Your task to perform on an android device: What's the weather? Image 0: 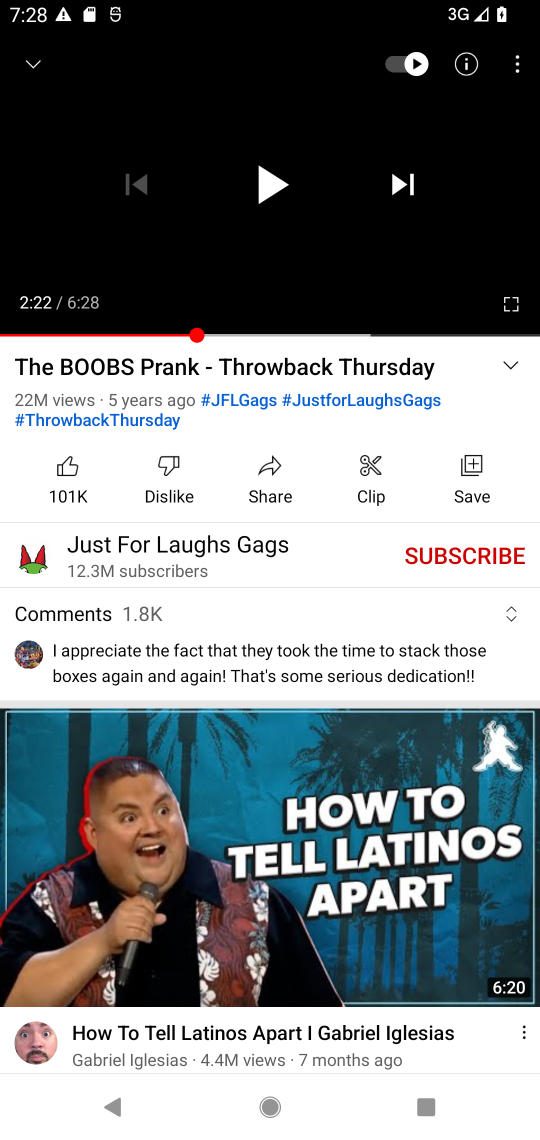
Step 0: press home button
Your task to perform on an android device: What's the weather? Image 1: 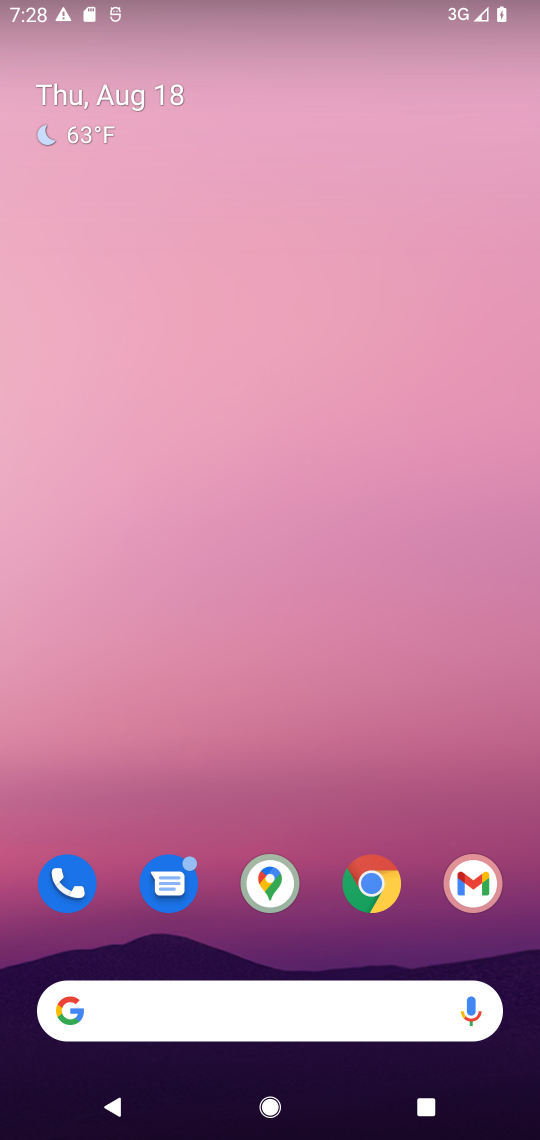
Step 1: click (137, 1013)
Your task to perform on an android device: What's the weather? Image 2: 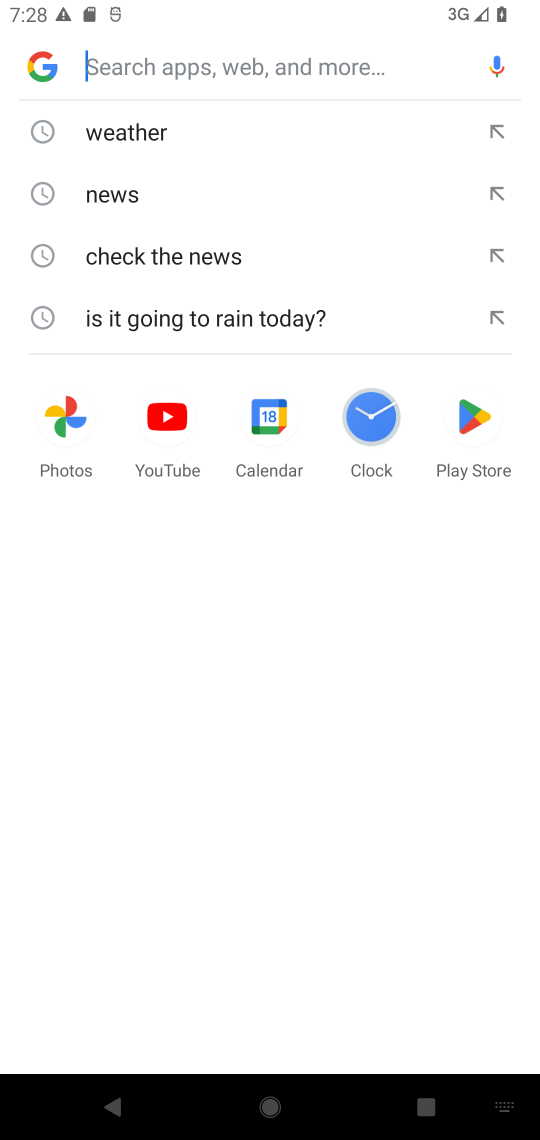
Step 2: type "What's the weather?"
Your task to perform on an android device: What's the weather? Image 3: 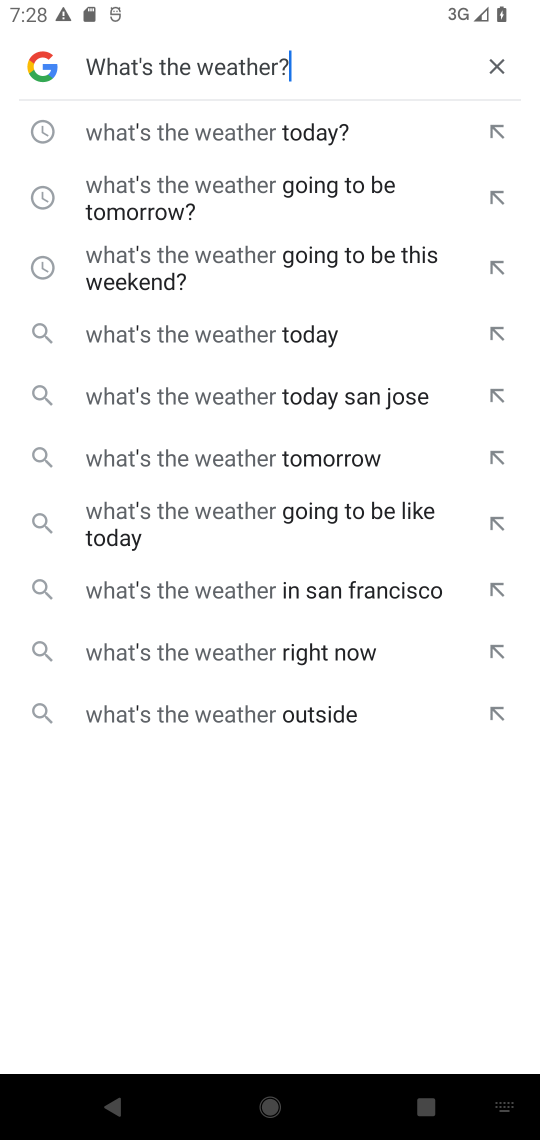
Step 3: type ""
Your task to perform on an android device: What's the weather? Image 4: 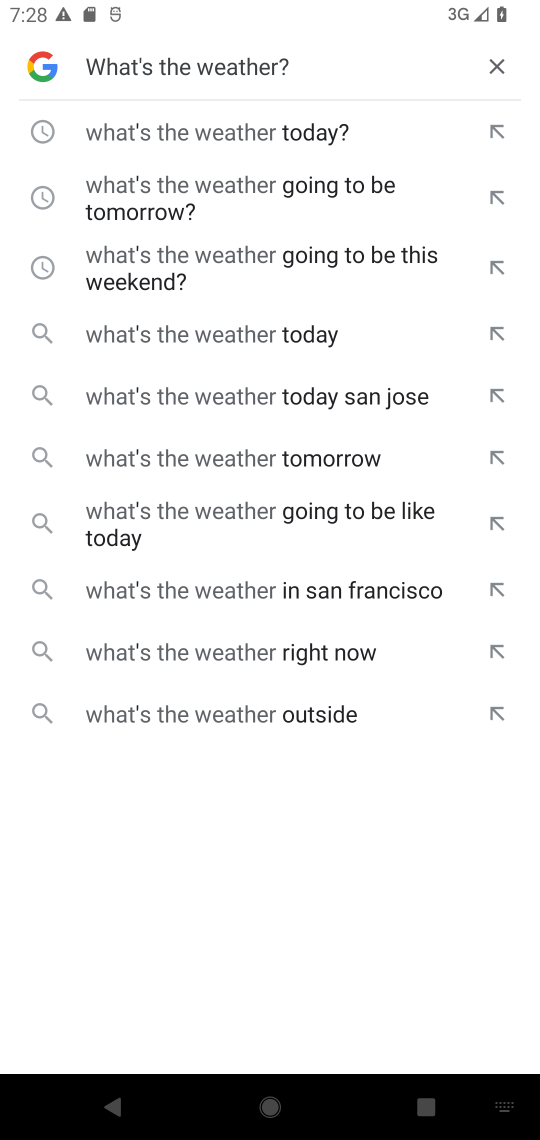
Step 4: type ""
Your task to perform on an android device: What's the weather? Image 5: 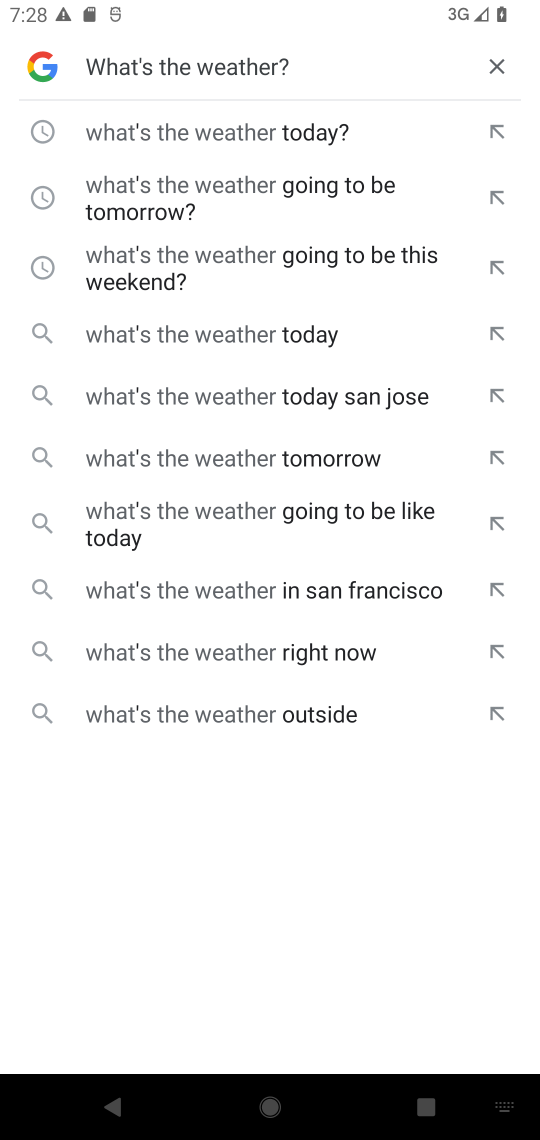
Step 5: task complete